Your task to perform on an android device: turn off wifi Image 0: 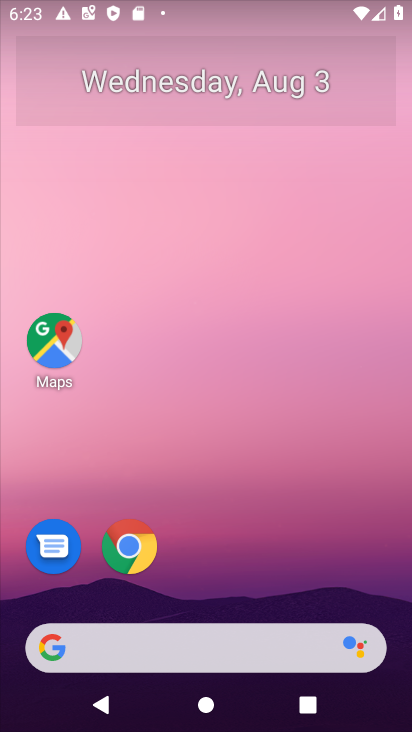
Step 0: press home button
Your task to perform on an android device: turn off wifi Image 1: 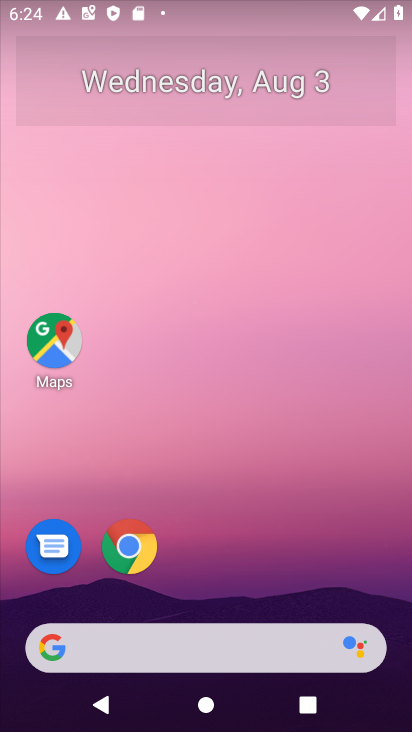
Step 1: drag from (211, 6) to (189, 488)
Your task to perform on an android device: turn off wifi Image 2: 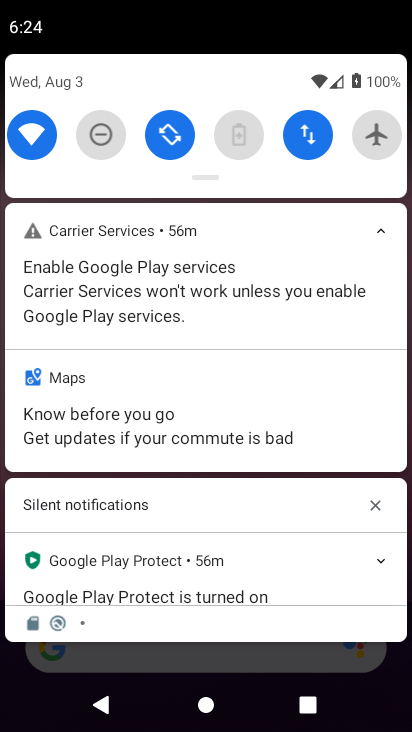
Step 2: click (31, 139)
Your task to perform on an android device: turn off wifi Image 3: 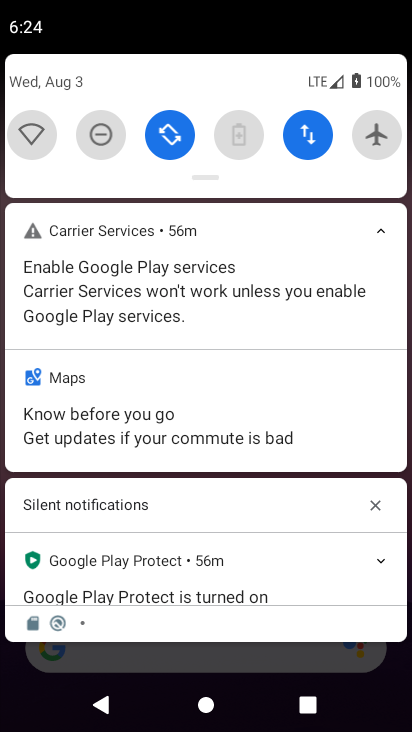
Step 3: task complete